Your task to perform on an android device: Open the Play Movies app and select the watchlist tab. Image 0: 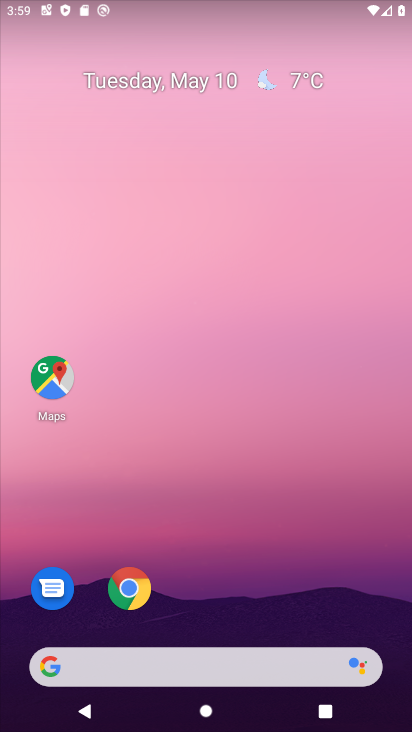
Step 0: drag from (297, 597) to (254, 82)
Your task to perform on an android device: Open the Play Movies app and select the watchlist tab. Image 1: 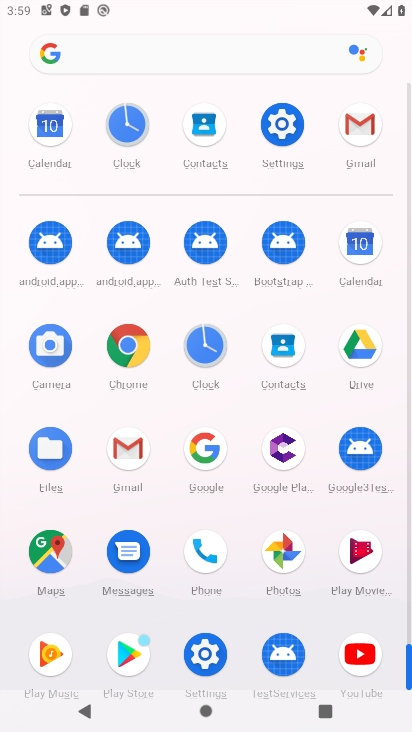
Step 1: click (358, 545)
Your task to perform on an android device: Open the Play Movies app and select the watchlist tab. Image 2: 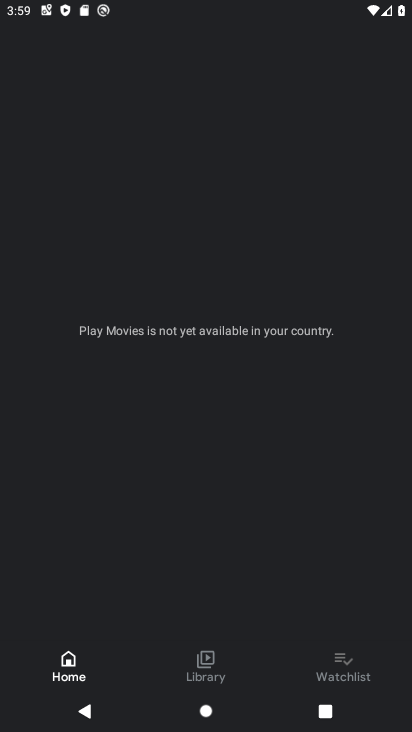
Step 2: click (337, 677)
Your task to perform on an android device: Open the Play Movies app and select the watchlist tab. Image 3: 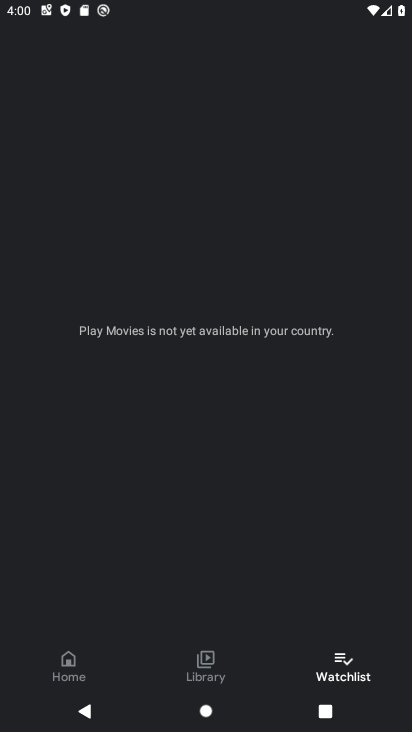
Step 3: task complete